Your task to perform on an android device: View the shopping cart on costco.com. Search for "logitech g903" on costco.com, select the first entry, and add it to the cart. Image 0: 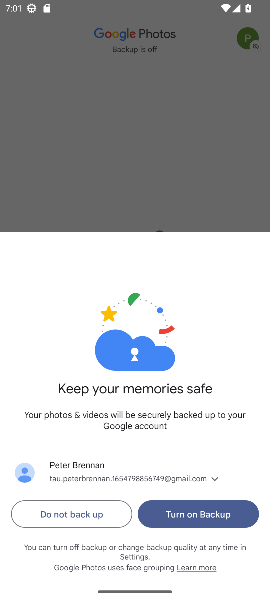
Step 0: press home button
Your task to perform on an android device: View the shopping cart on costco.com. Search for "logitech g903" on costco.com, select the first entry, and add it to the cart. Image 1: 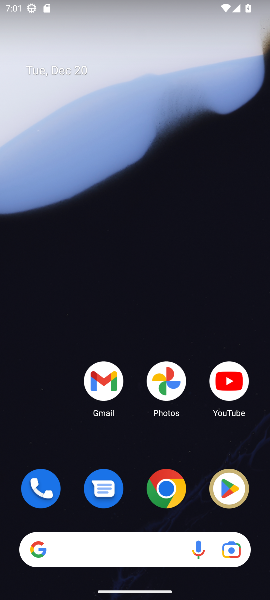
Step 1: drag from (60, 431) to (57, 69)
Your task to perform on an android device: View the shopping cart on costco.com. Search for "logitech g903" on costco.com, select the first entry, and add it to the cart. Image 2: 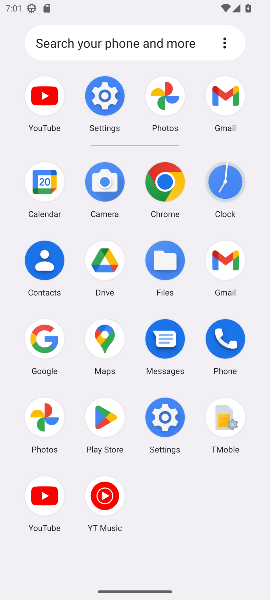
Step 2: click (35, 326)
Your task to perform on an android device: View the shopping cart on costco.com. Search for "logitech g903" on costco.com, select the first entry, and add it to the cart. Image 3: 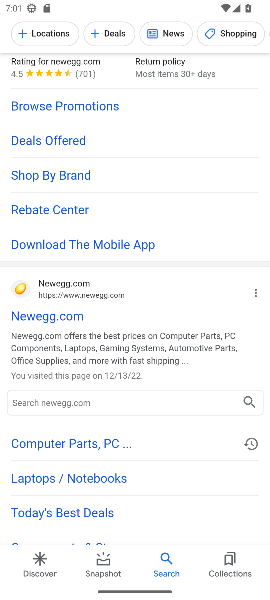
Step 3: drag from (192, 166) to (187, 448)
Your task to perform on an android device: View the shopping cart on costco.com. Search for "logitech g903" on costco.com, select the first entry, and add it to the cart. Image 4: 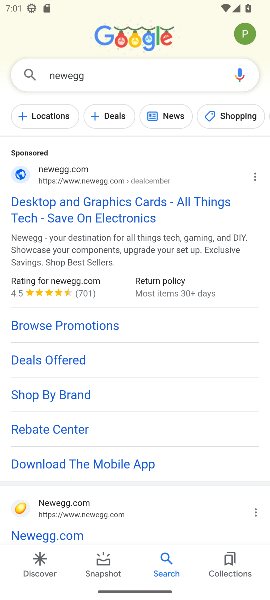
Step 4: click (122, 70)
Your task to perform on an android device: View the shopping cart on costco.com. Search for "logitech g903" on costco.com, select the first entry, and add it to the cart. Image 5: 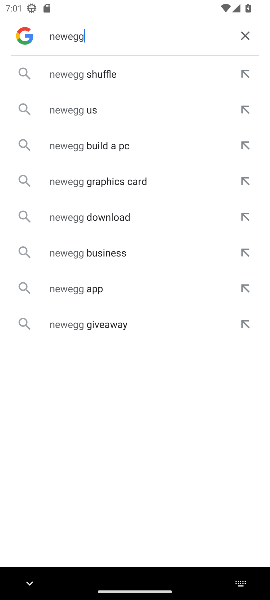
Step 5: click (243, 29)
Your task to perform on an android device: View the shopping cart on costco.com. Search for "logitech g903" on costco.com, select the first entry, and add it to the cart. Image 6: 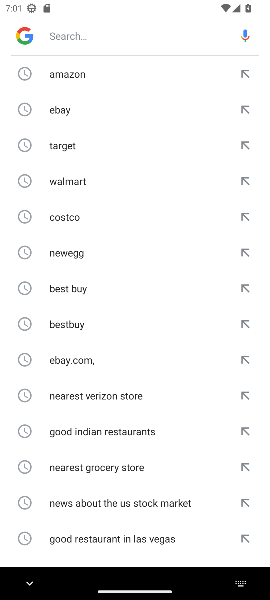
Step 6: type "costco.com"
Your task to perform on an android device: View the shopping cart on costco.com. Search for "logitech g903" on costco.com, select the first entry, and add it to the cart. Image 7: 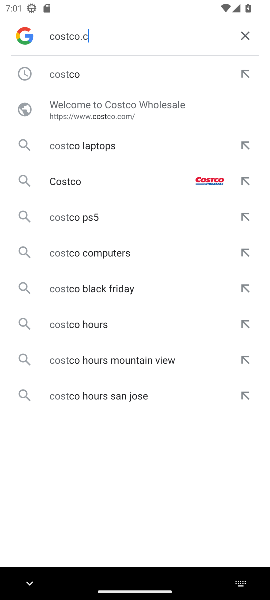
Step 7: press enter
Your task to perform on an android device: View the shopping cart on costco.com. Search for "logitech g903" on costco.com, select the first entry, and add it to the cart. Image 8: 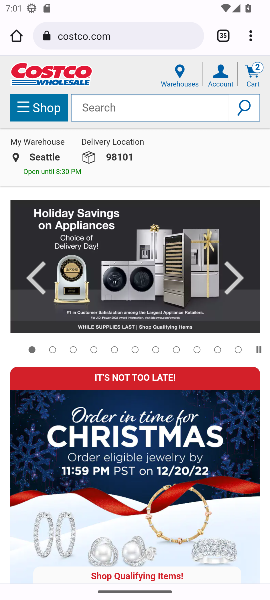
Step 8: click (254, 70)
Your task to perform on an android device: View the shopping cart on costco.com. Search for "logitech g903" on costco.com, select the first entry, and add it to the cart. Image 9: 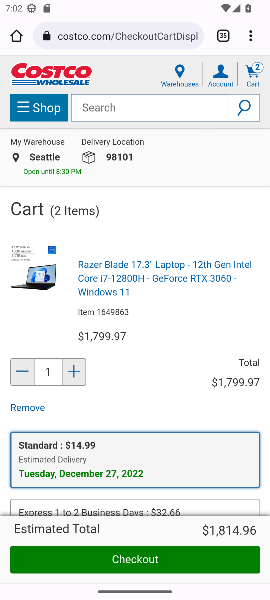
Step 9: click (27, 405)
Your task to perform on an android device: View the shopping cart on costco.com. Search for "logitech g903" on costco.com, select the first entry, and add it to the cart. Image 10: 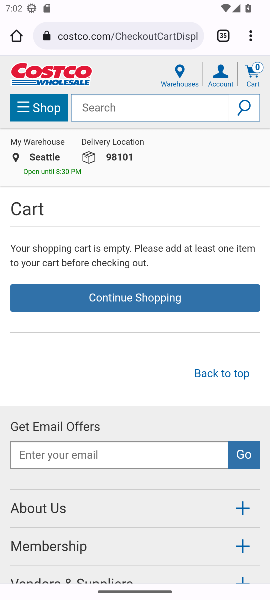
Step 10: click (107, 105)
Your task to perform on an android device: View the shopping cart on costco.com. Search for "logitech g903" on costco.com, select the first entry, and add it to the cart. Image 11: 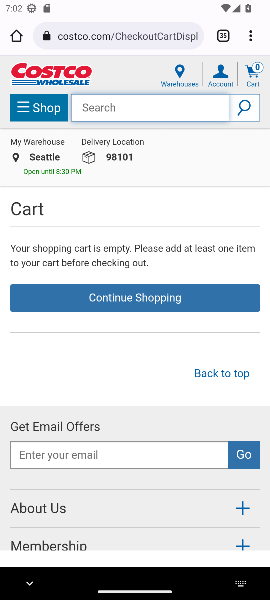
Step 11: type "logitech g903"
Your task to perform on an android device: View the shopping cart on costco.com. Search for "logitech g903" on costco.com, select the first entry, and add it to the cart. Image 12: 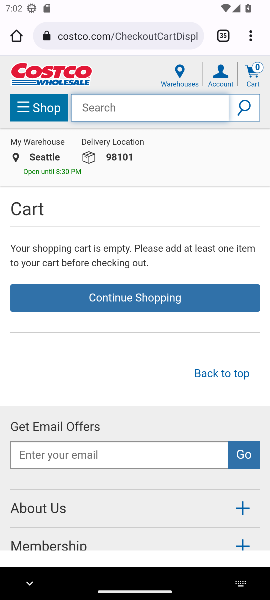
Step 12: press enter
Your task to perform on an android device: View the shopping cart on costco.com. Search for "logitech g903" on costco.com, select the first entry, and add it to the cart. Image 13: 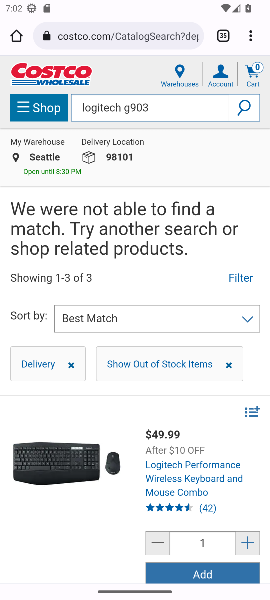
Step 13: task complete